Your task to perform on an android device: Open Android settings Image 0: 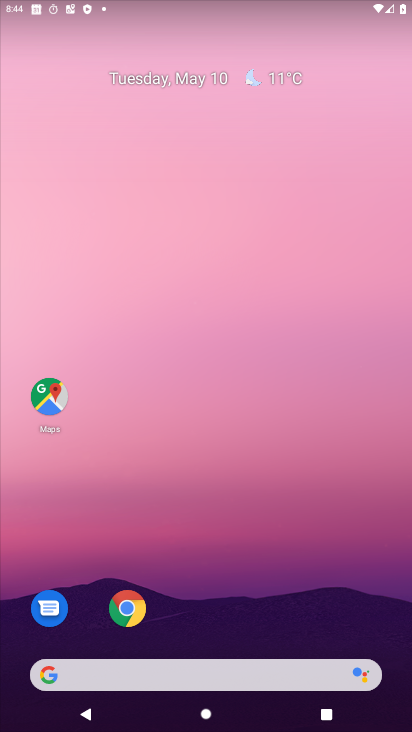
Step 0: drag from (225, 672) to (228, 396)
Your task to perform on an android device: Open Android settings Image 1: 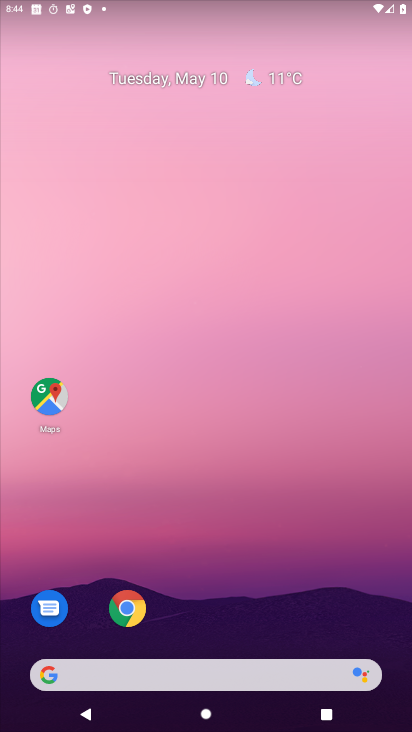
Step 1: drag from (247, 685) to (278, 516)
Your task to perform on an android device: Open Android settings Image 2: 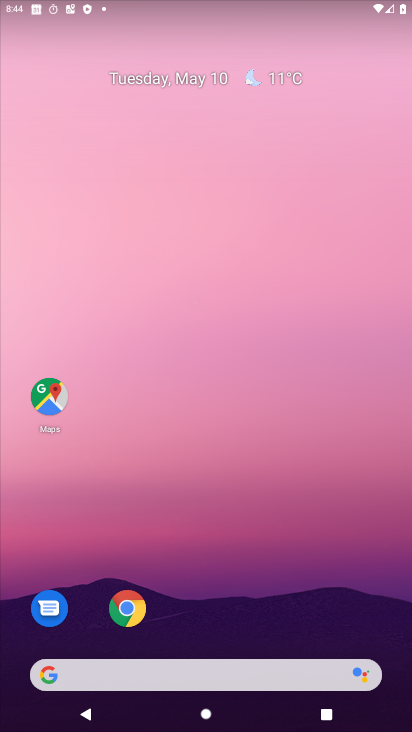
Step 2: drag from (215, 672) to (229, 339)
Your task to perform on an android device: Open Android settings Image 3: 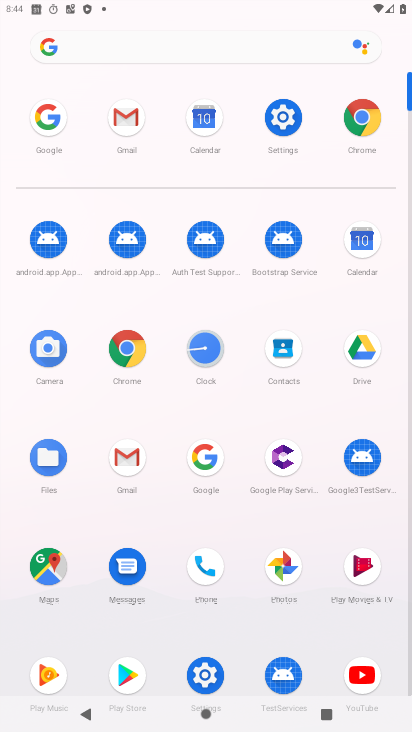
Step 3: click (194, 663)
Your task to perform on an android device: Open Android settings Image 4: 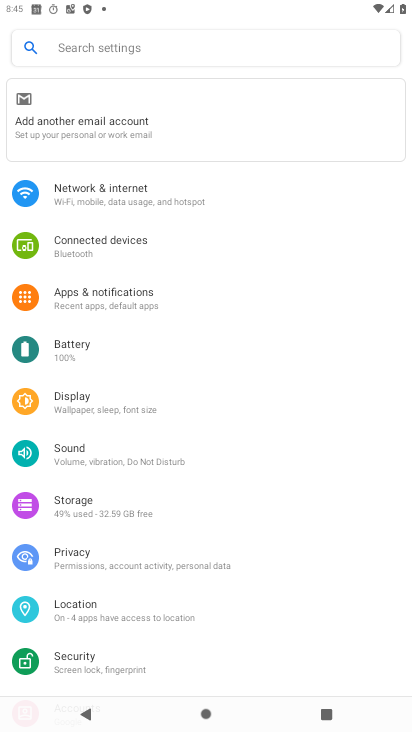
Step 4: task complete